Your task to perform on an android device: See recent photos Image 0: 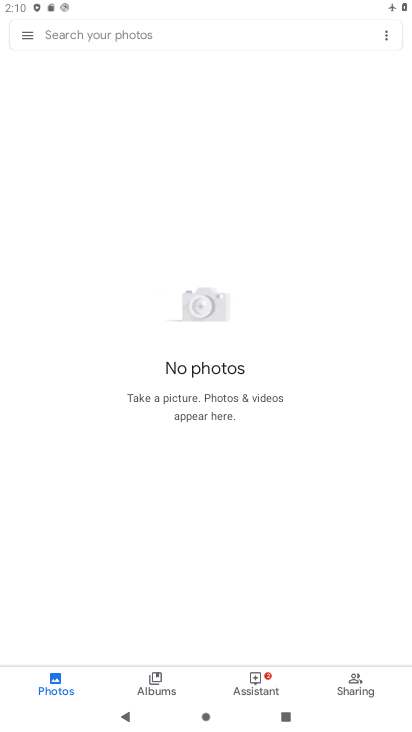
Step 0: click (128, 676)
Your task to perform on an android device: See recent photos Image 1: 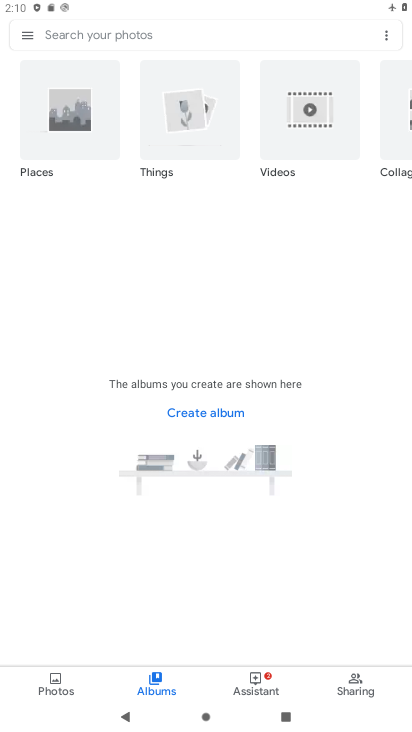
Step 1: press home button
Your task to perform on an android device: See recent photos Image 2: 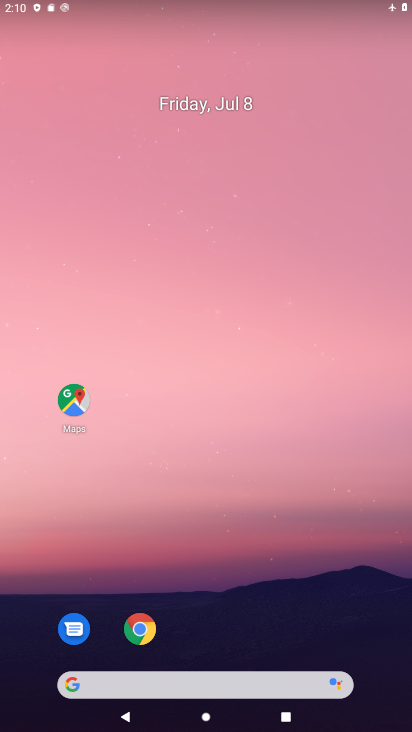
Step 2: drag from (88, 579) to (314, 9)
Your task to perform on an android device: See recent photos Image 3: 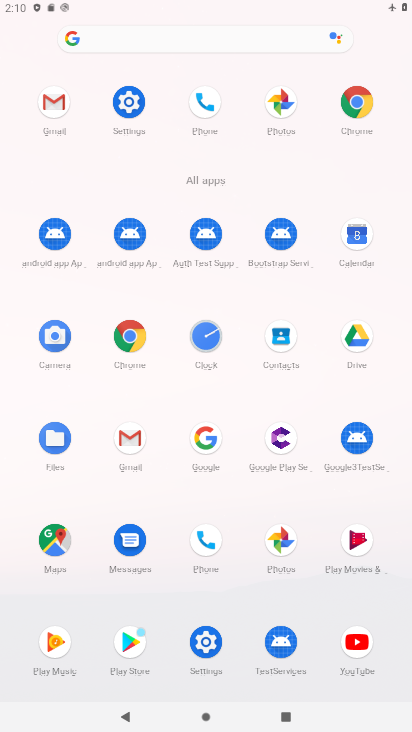
Step 3: click (273, 542)
Your task to perform on an android device: See recent photos Image 4: 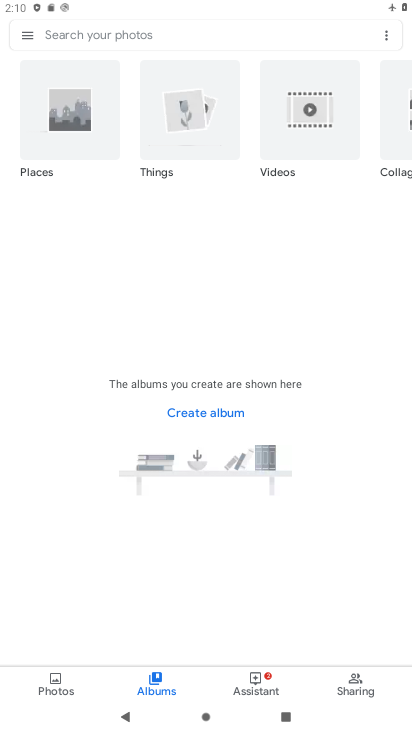
Step 4: click (43, 690)
Your task to perform on an android device: See recent photos Image 5: 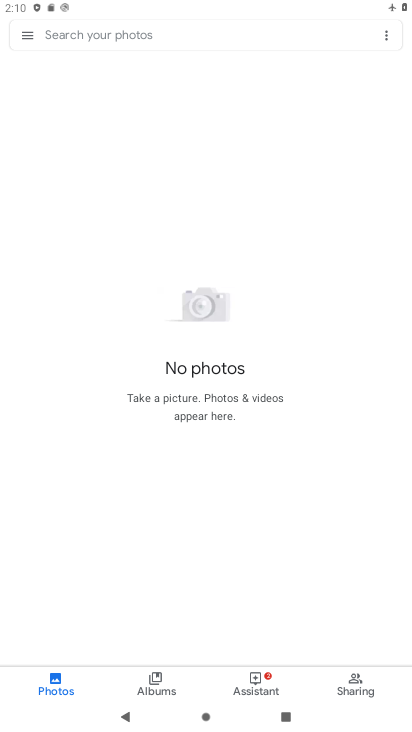
Step 5: task complete